Your task to perform on an android device: check the backup settings in the google photos Image 0: 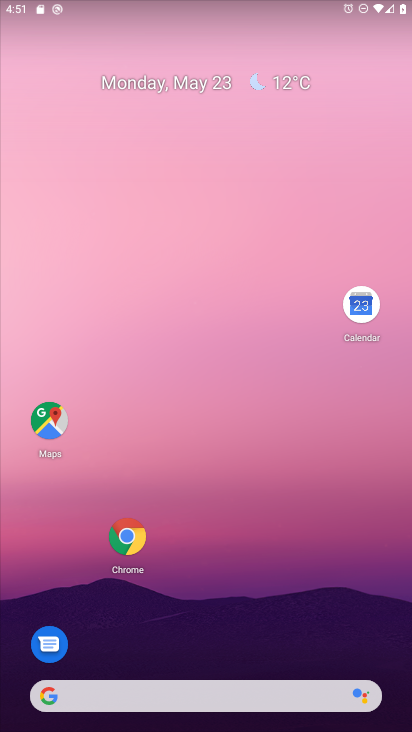
Step 0: drag from (219, 575) to (219, 158)
Your task to perform on an android device: check the backup settings in the google photos Image 1: 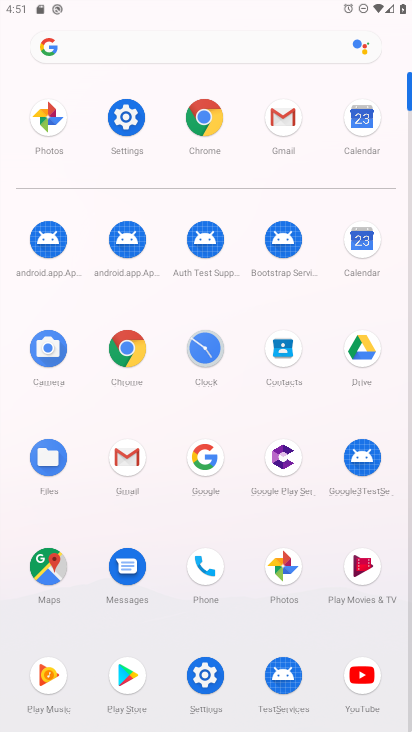
Step 1: click (284, 568)
Your task to perform on an android device: check the backup settings in the google photos Image 2: 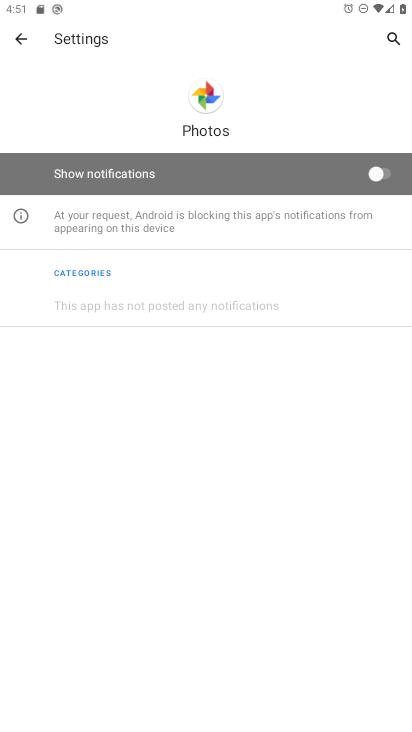
Step 2: click (15, 28)
Your task to perform on an android device: check the backup settings in the google photos Image 3: 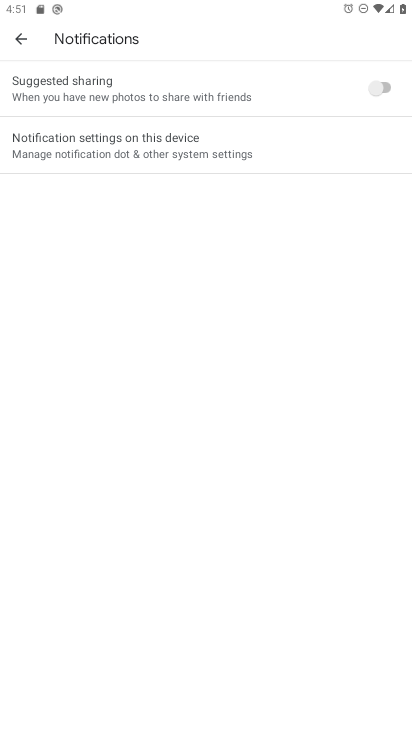
Step 3: click (25, 38)
Your task to perform on an android device: check the backup settings in the google photos Image 4: 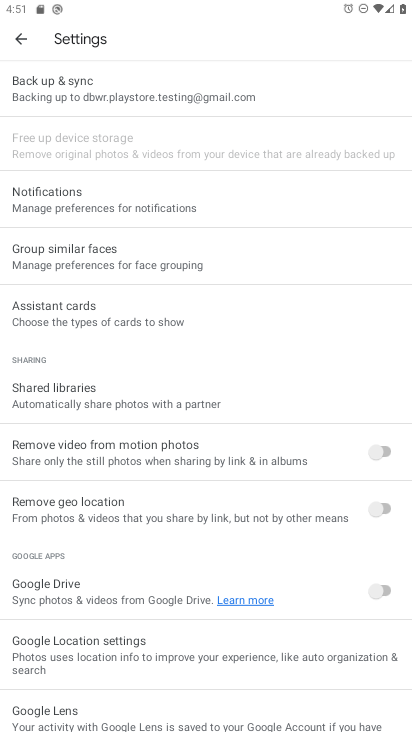
Step 4: click (52, 78)
Your task to perform on an android device: check the backup settings in the google photos Image 5: 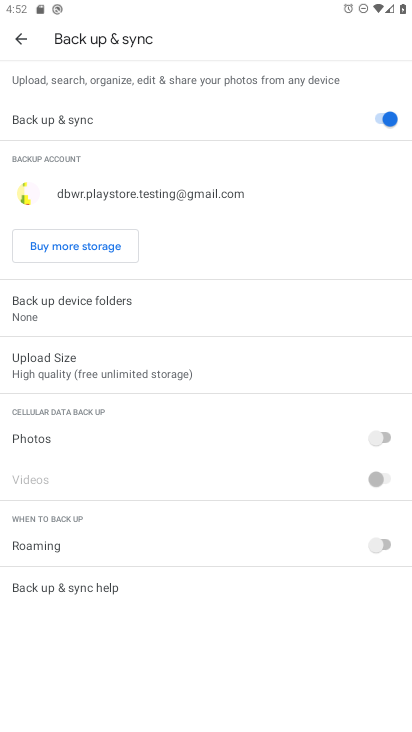
Step 5: task complete